Your task to perform on an android device: Open the stopwatch Image 0: 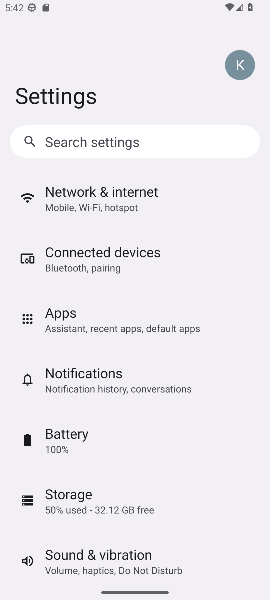
Step 0: press home button
Your task to perform on an android device: Open the stopwatch Image 1: 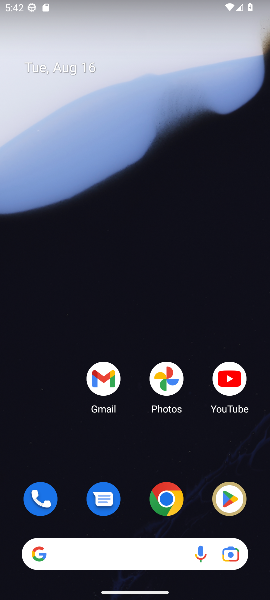
Step 1: drag from (63, 300) to (21, 20)
Your task to perform on an android device: Open the stopwatch Image 2: 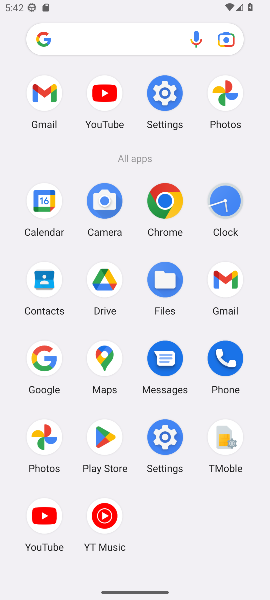
Step 2: click (218, 218)
Your task to perform on an android device: Open the stopwatch Image 3: 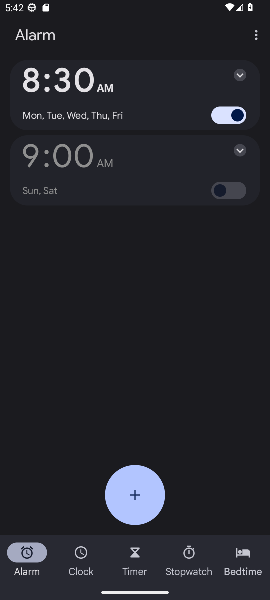
Step 3: click (191, 559)
Your task to perform on an android device: Open the stopwatch Image 4: 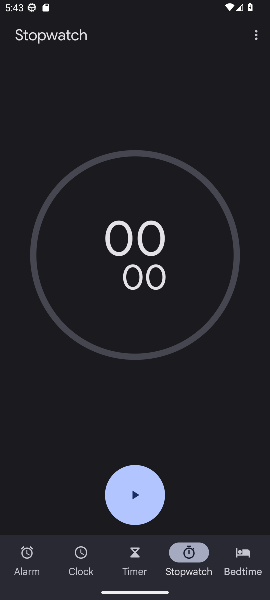
Step 4: click (135, 497)
Your task to perform on an android device: Open the stopwatch Image 5: 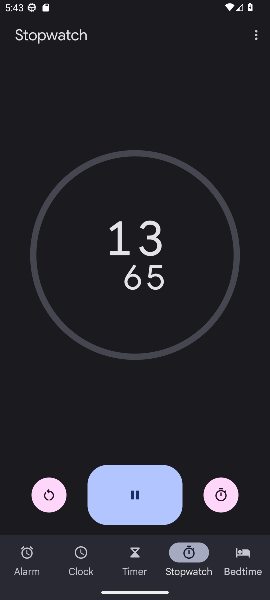
Step 5: task complete